Your task to perform on an android device: Go to Yahoo.com Image 0: 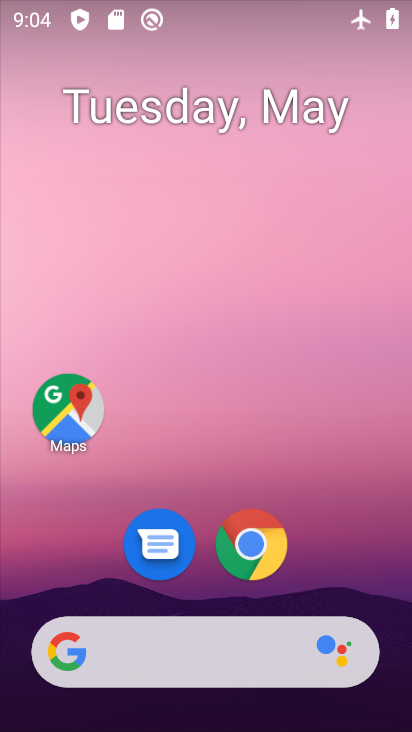
Step 0: drag from (379, 441) to (344, 141)
Your task to perform on an android device: Go to Yahoo.com Image 1: 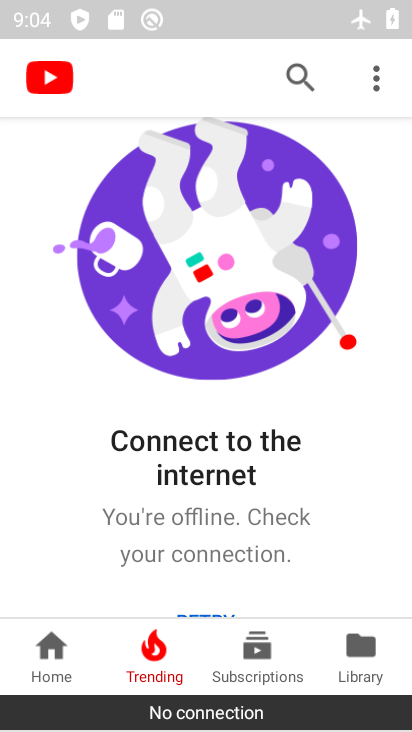
Step 1: press home button
Your task to perform on an android device: Go to Yahoo.com Image 2: 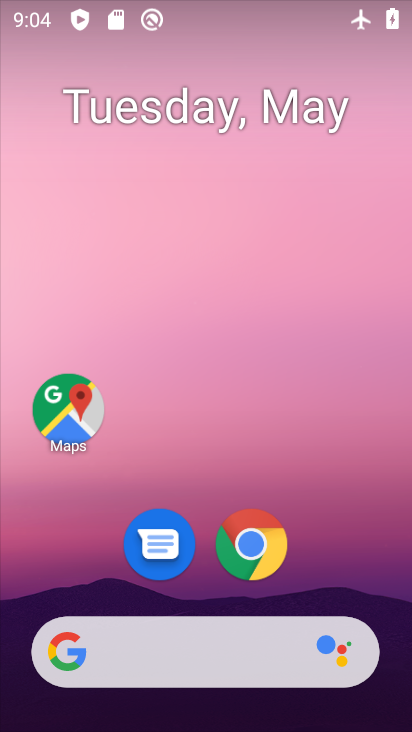
Step 2: click (264, 545)
Your task to perform on an android device: Go to Yahoo.com Image 3: 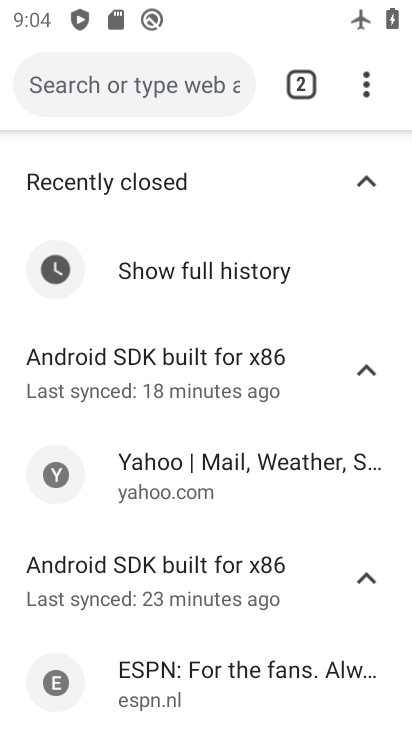
Step 3: click (236, 83)
Your task to perform on an android device: Go to Yahoo.com Image 4: 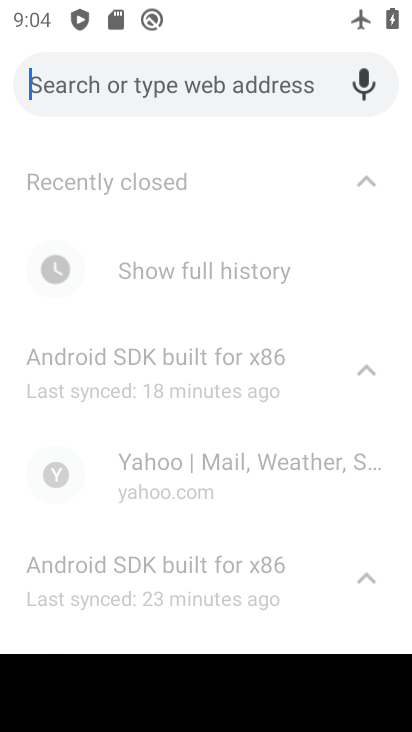
Step 4: type "yahoo.com"
Your task to perform on an android device: Go to Yahoo.com Image 5: 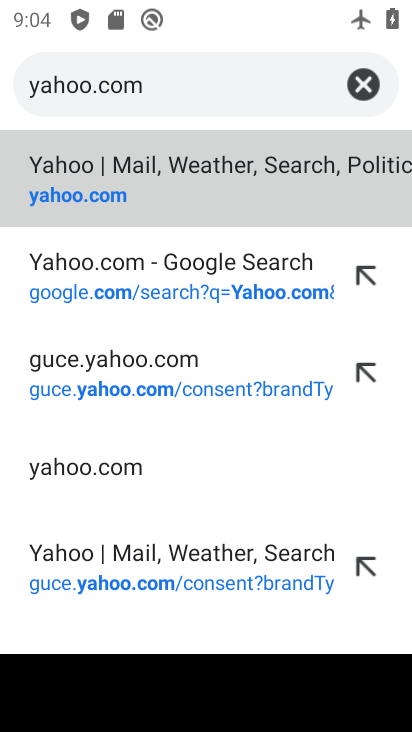
Step 5: click (245, 181)
Your task to perform on an android device: Go to Yahoo.com Image 6: 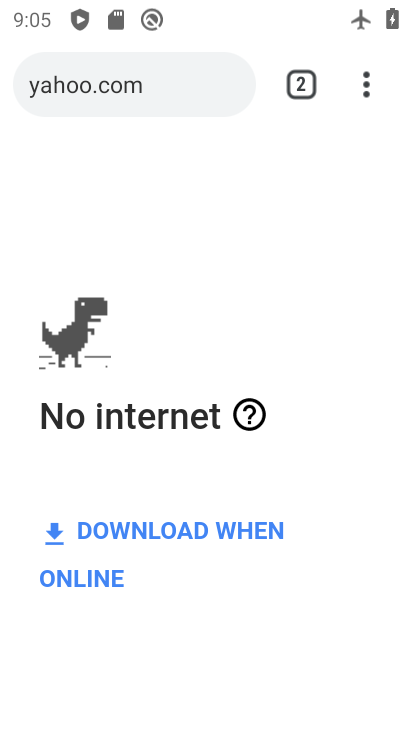
Step 6: task complete